Your task to perform on an android device: remove spam from my inbox in the gmail app Image 0: 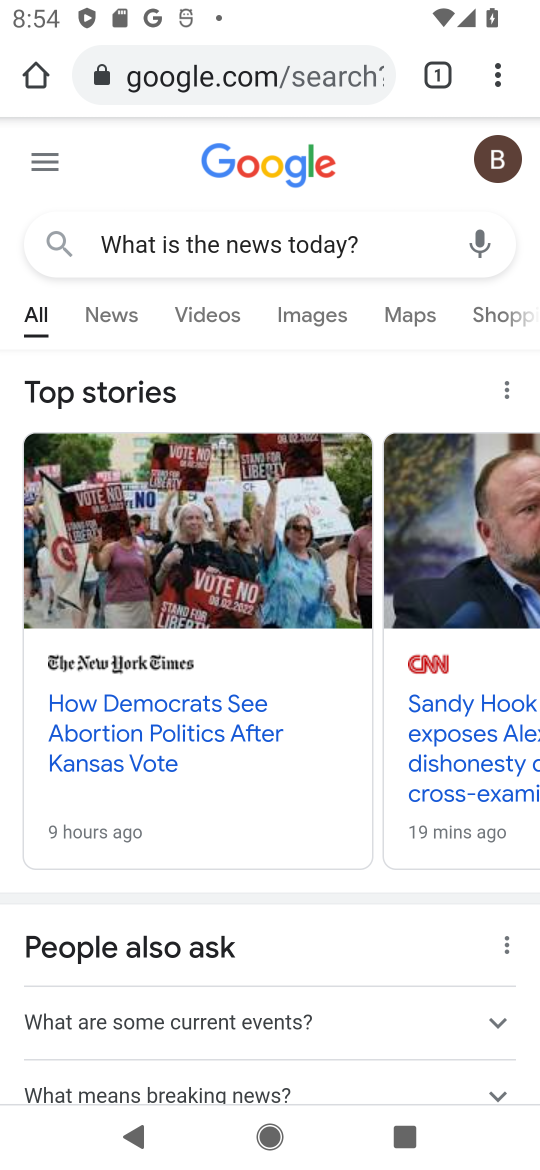
Step 0: press home button
Your task to perform on an android device: remove spam from my inbox in the gmail app Image 1: 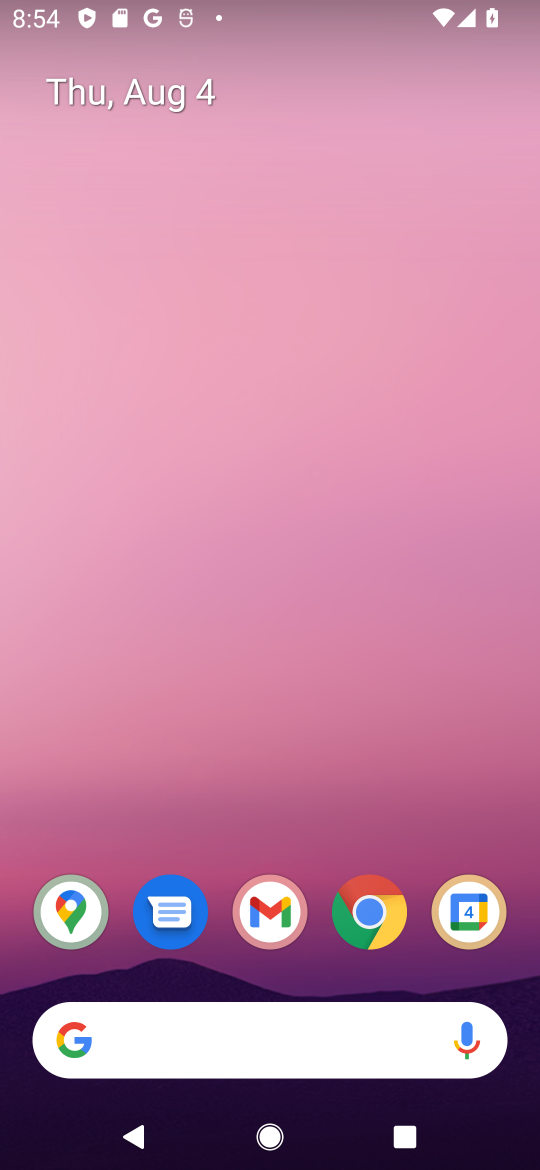
Step 1: click (284, 906)
Your task to perform on an android device: remove spam from my inbox in the gmail app Image 2: 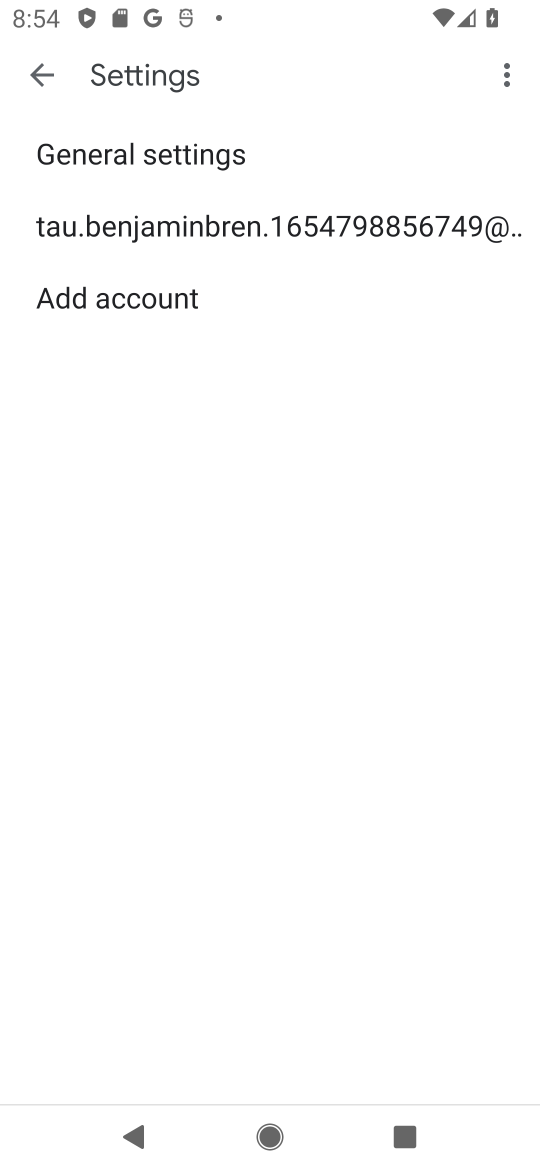
Step 2: click (31, 84)
Your task to perform on an android device: remove spam from my inbox in the gmail app Image 3: 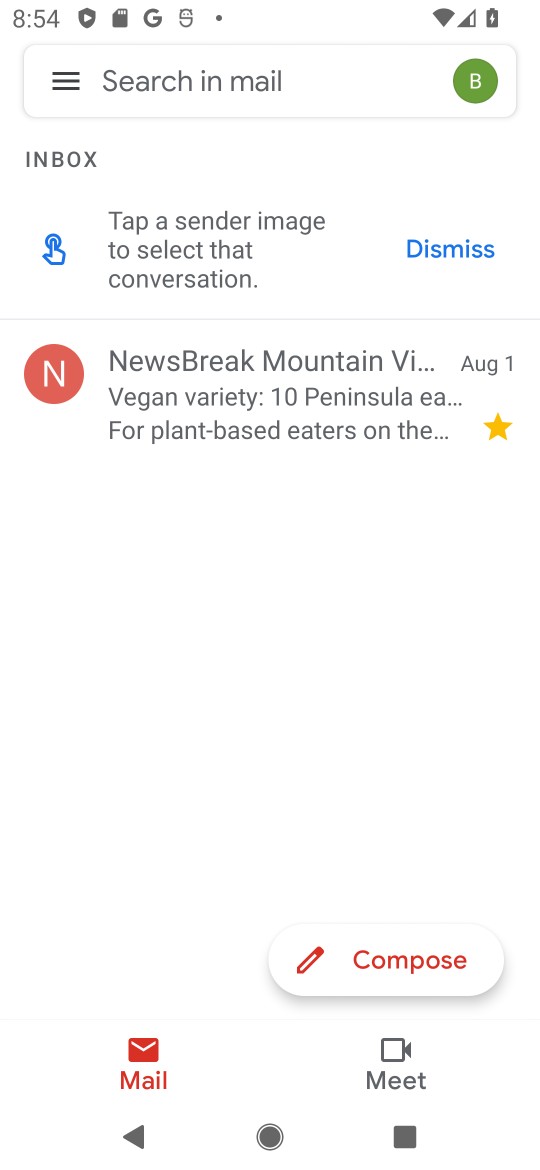
Step 3: click (65, 75)
Your task to perform on an android device: remove spam from my inbox in the gmail app Image 4: 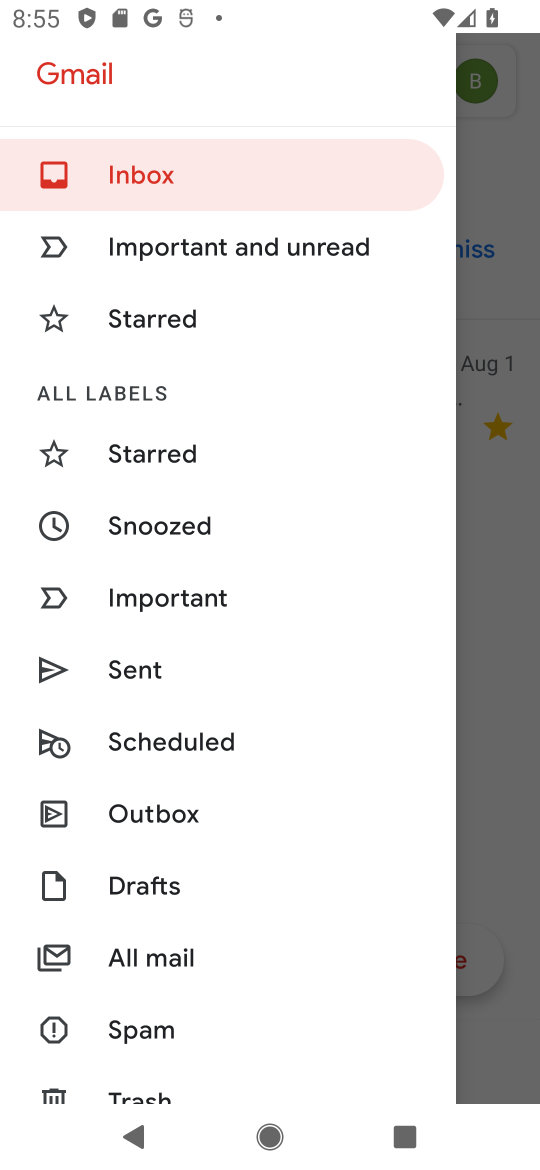
Step 4: click (202, 1027)
Your task to perform on an android device: remove spam from my inbox in the gmail app Image 5: 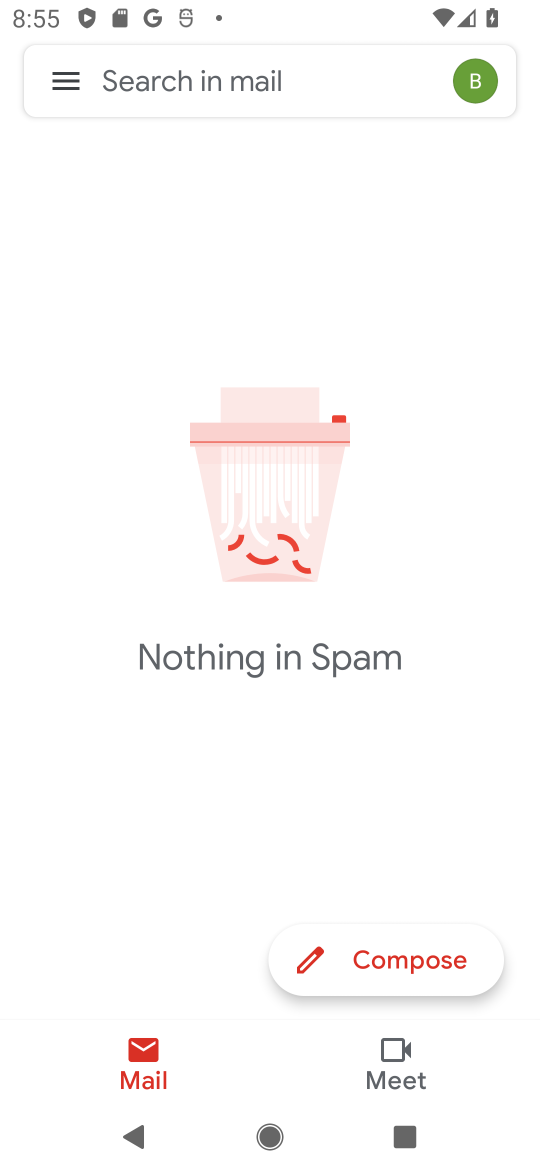
Step 5: task complete